Your task to perform on an android device: Go to wifi settings Image 0: 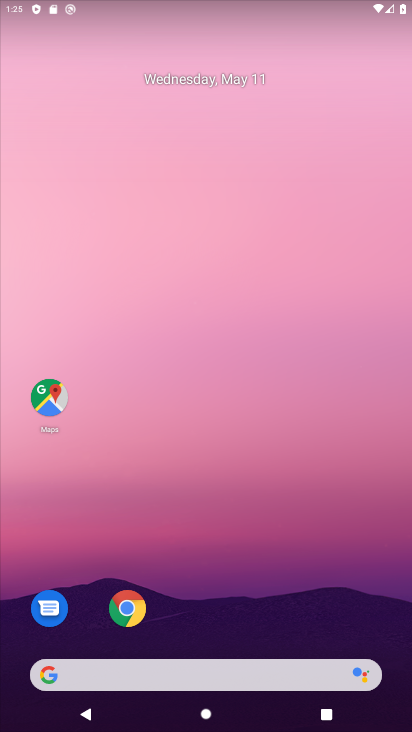
Step 0: drag from (225, 620) to (213, 36)
Your task to perform on an android device: Go to wifi settings Image 1: 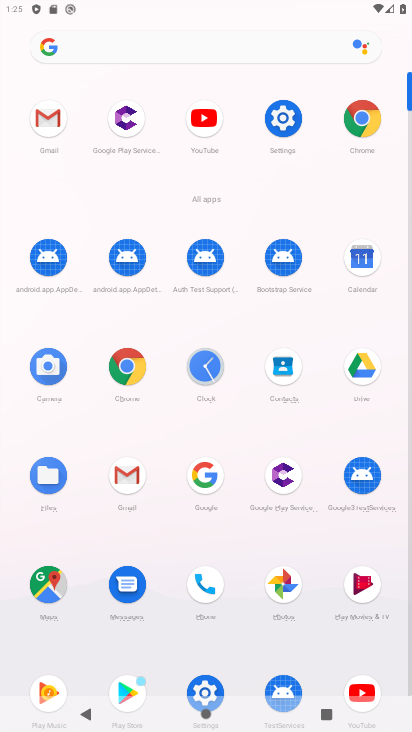
Step 1: click (282, 122)
Your task to perform on an android device: Go to wifi settings Image 2: 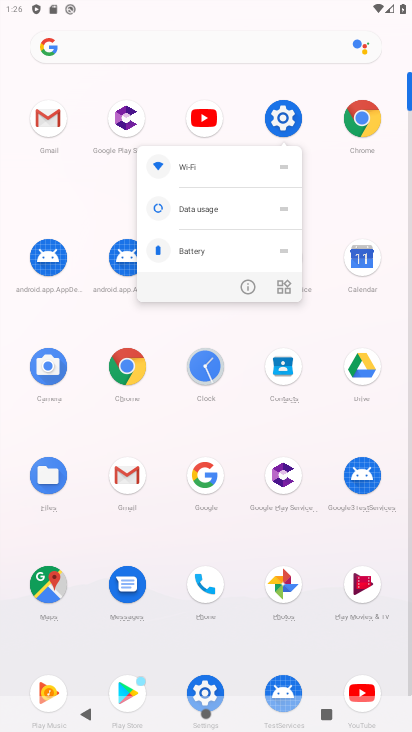
Step 2: click (289, 125)
Your task to perform on an android device: Go to wifi settings Image 3: 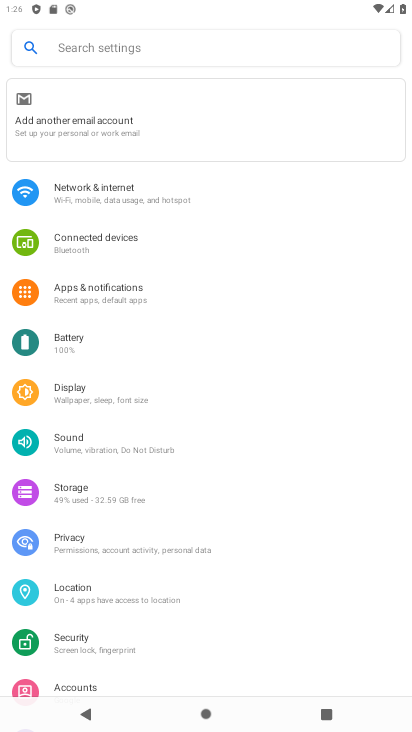
Step 3: click (127, 188)
Your task to perform on an android device: Go to wifi settings Image 4: 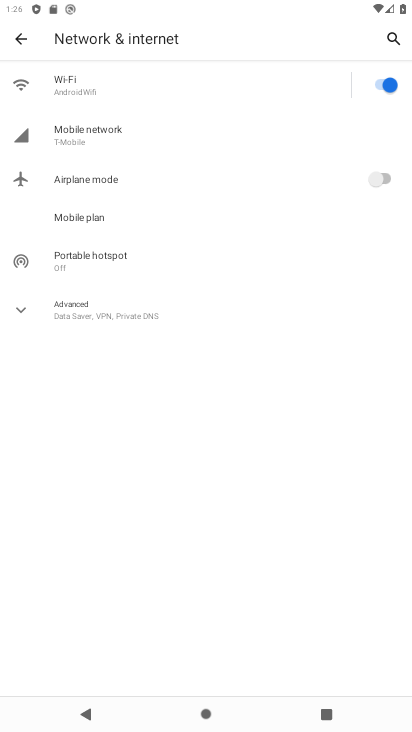
Step 4: click (122, 85)
Your task to perform on an android device: Go to wifi settings Image 5: 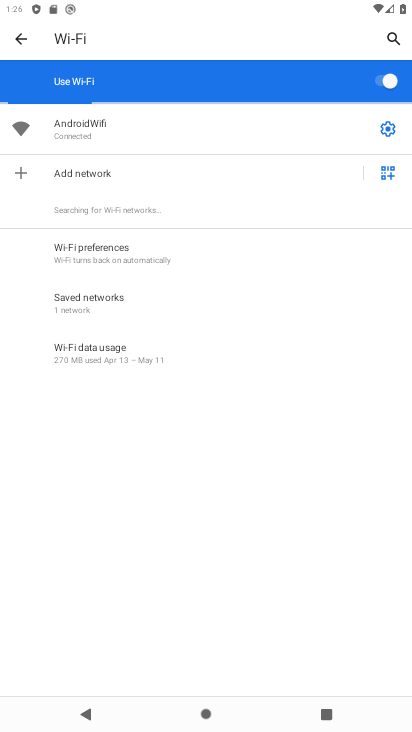
Step 5: task complete